Your task to perform on an android device: turn off location Image 0: 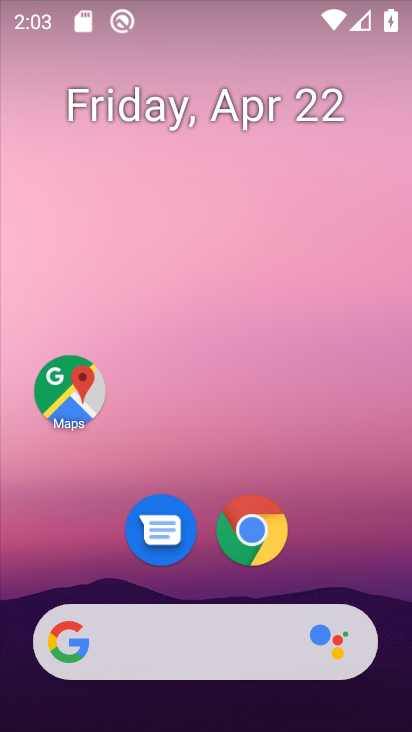
Step 0: drag from (213, 589) to (244, 102)
Your task to perform on an android device: turn off location Image 1: 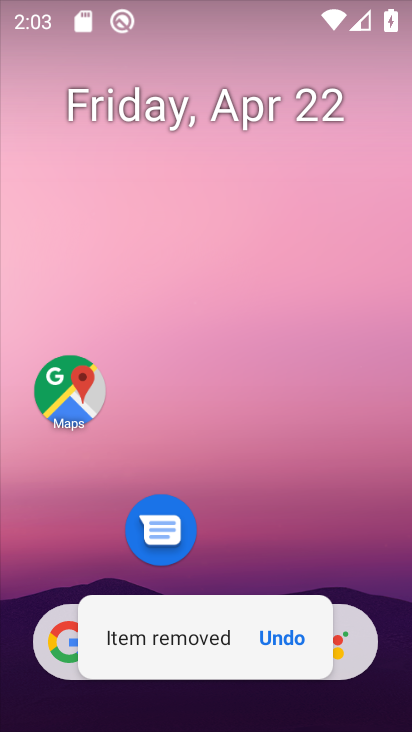
Step 1: drag from (219, 722) to (236, 4)
Your task to perform on an android device: turn off location Image 2: 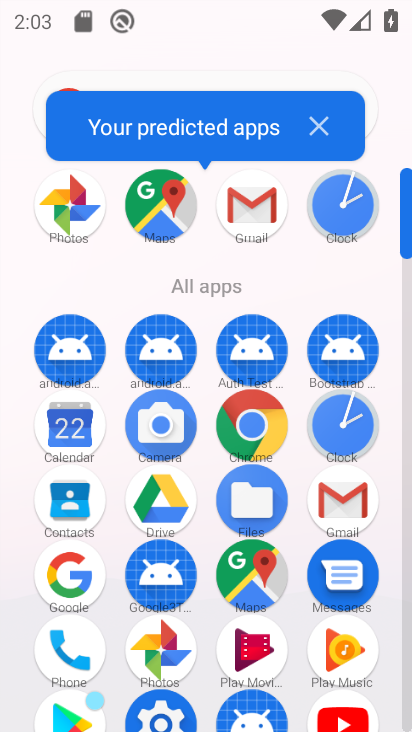
Step 2: drag from (213, 625) to (190, 110)
Your task to perform on an android device: turn off location Image 3: 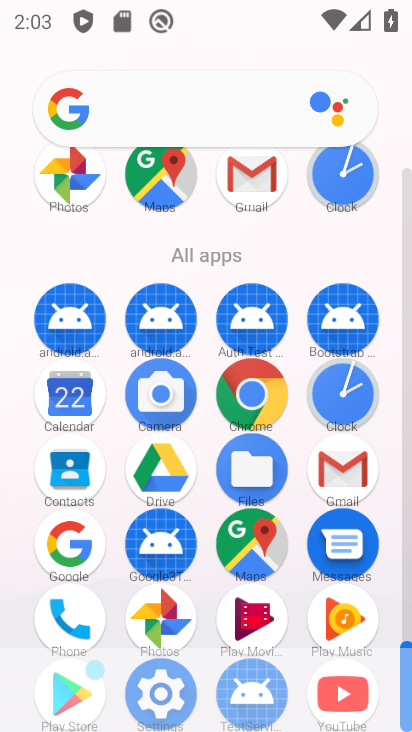
Step 3: click (158, 677)
Your task to perform on an android device: turn off location Image 4: 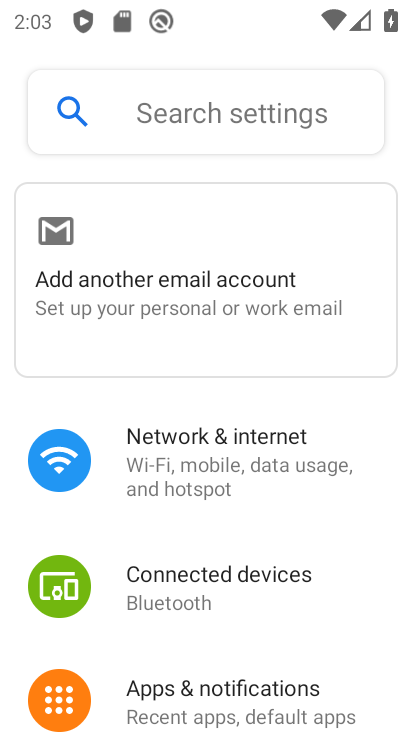
Step 4: drag from (212, 614) to (206, 285)
Your task to perform on an android device: turn off location Image 5: 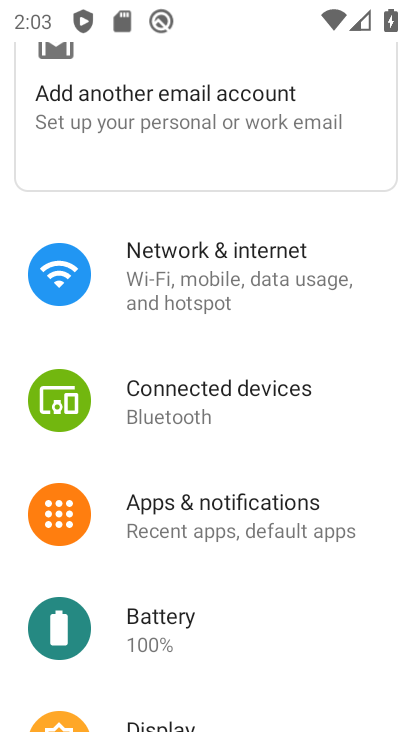
Step 5: drag from (219, 586) to (206, 265)
Your task to perform on an android device: turn off location Image 6: 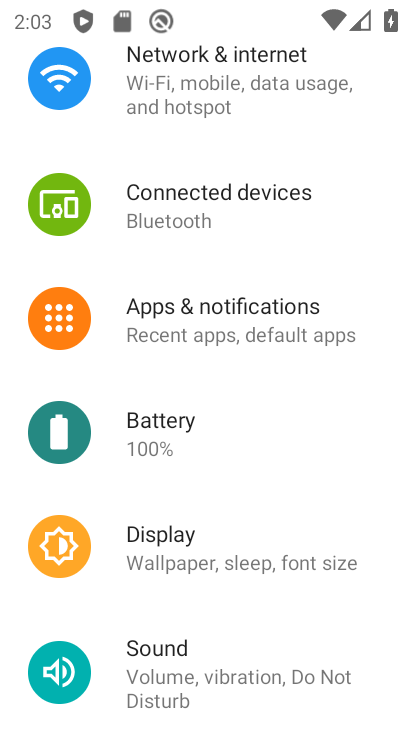
Step 6: drag from (221, 621) to (223, 189)
Your task to perform on an android device: turn off location Image 7: 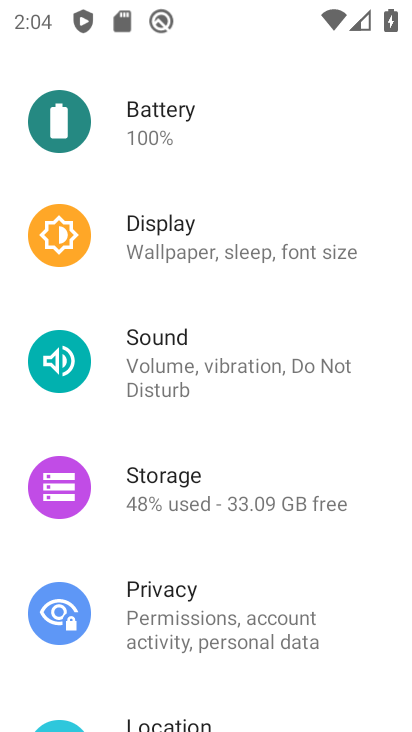
Step 7: drag from (179, 588) to (193, 171)
Your task to perform on an android device: turn off location Image 8: 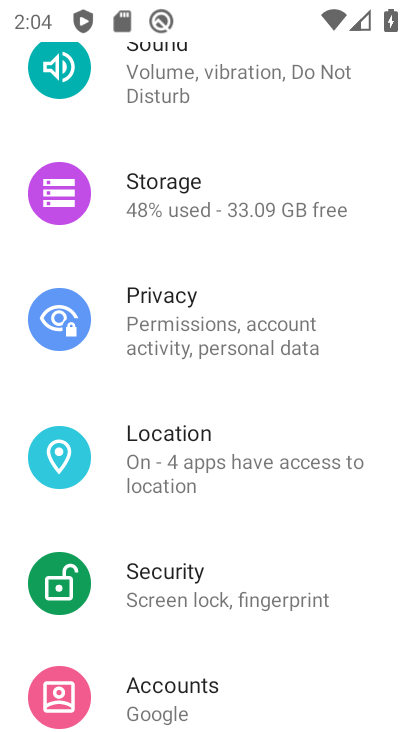
Step 8: click (152, 434)
Your task to perform on an android device: turn off location Image 9: 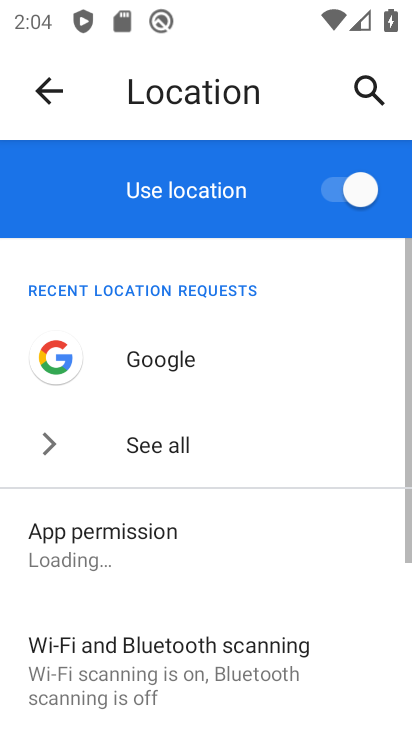
Step 9: click (362, 192)
Your task to perform on an android device: turn off location Image 10: 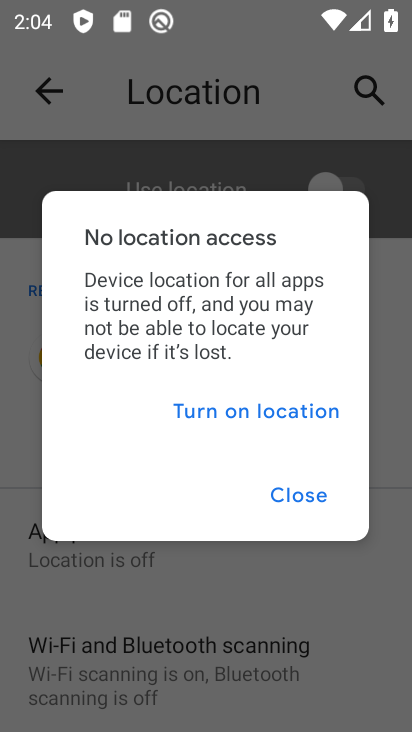
Step 10: click (299, 495)
Your task to perform on an android device: turn off location Image 11: 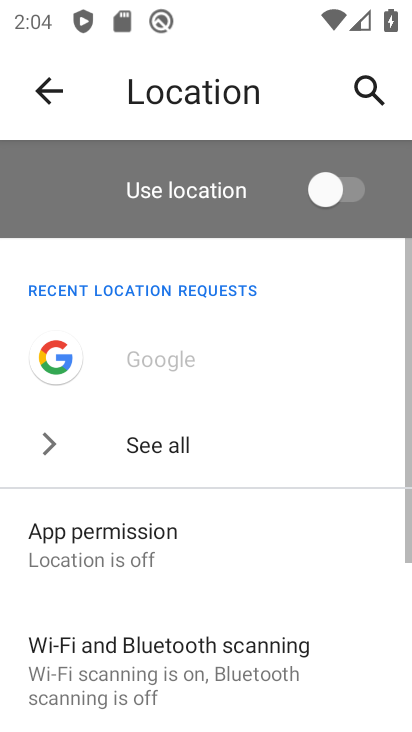
Step 11: task complete